Your task to perform on an android device: Open Google Image 0: 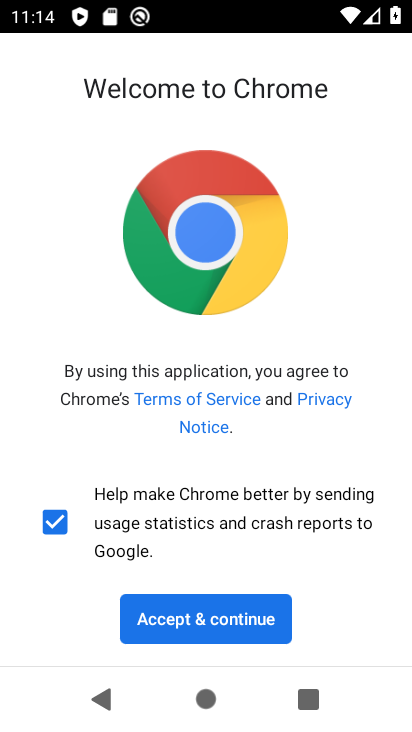
Step 0: press back button
Your task to perform on an android device: Open Google Image 1: 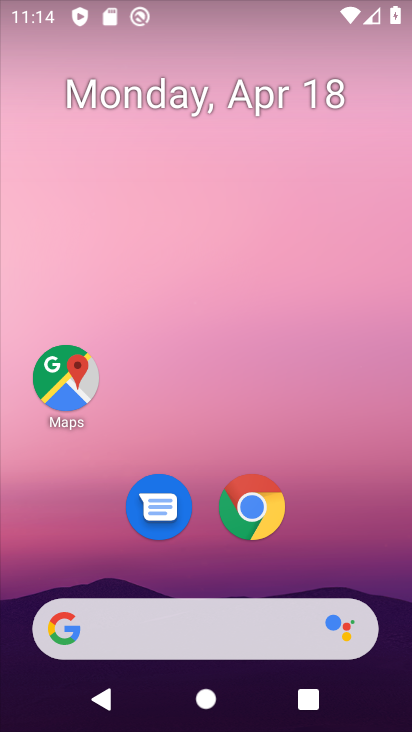
Step 1: drag from (194, 606) to (160, 122)
Your task to perform on an android device: Open Google Image 2: 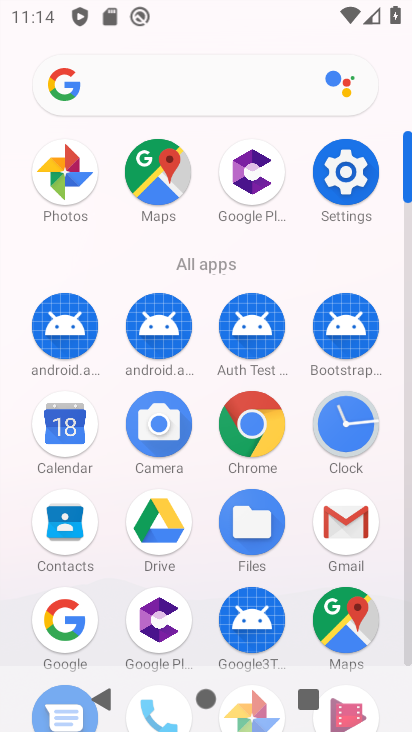
Step 2: click (84, 628)
Your task to perform on an android device: Open Google Image 3: 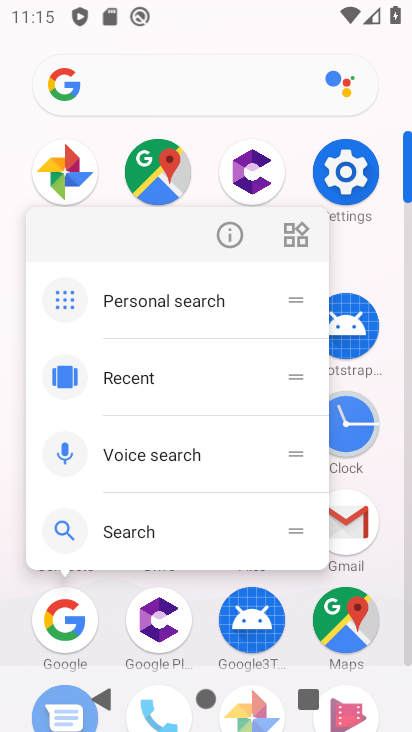
Step 3: click (68, 625)
Your task to perform on an android device: Open Google Image 4: 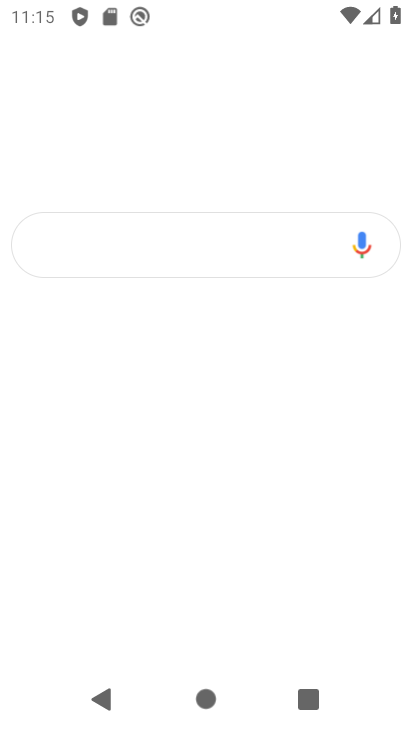
Step 4: click (69, 618)
Your task to perform on an android device: Open Google Image 5: 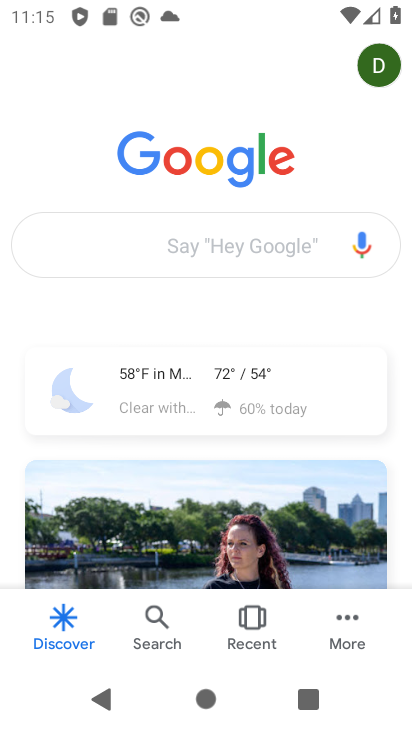
Step 5: task complete